Your task to perform on an android device: add a label to a message in the gmail app Image 0: 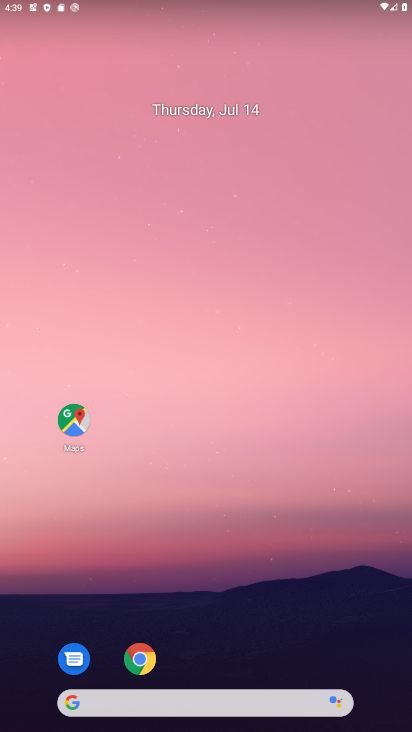
Step 0: drag from (216, 665) to (274, 23)
Your task to perform on an android device: add a label to a message in the gmail app Image 1: 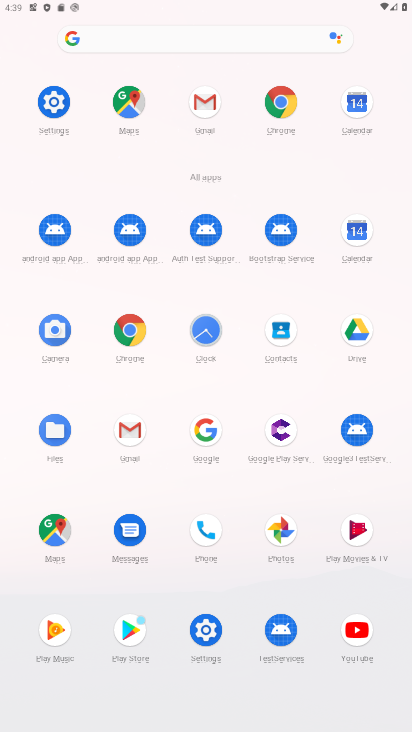
Step 1: click (128, 421)
Your task to perform on an android device: add a label to a message in the gmail app Image 2: 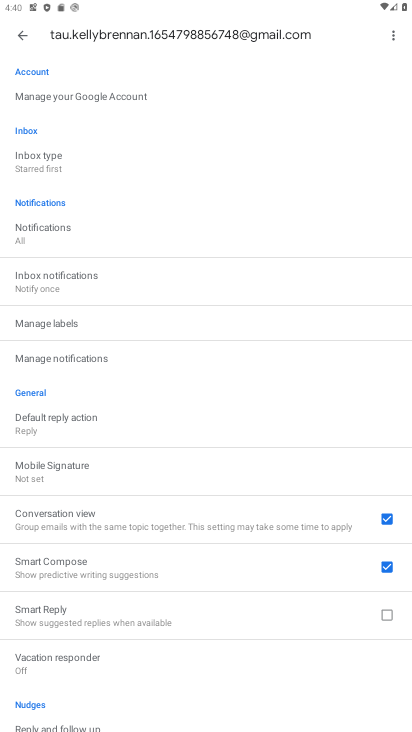
Step 2: task complete